Your task to perform on an android device: turn on notifications settings in the gmail app Image 0: 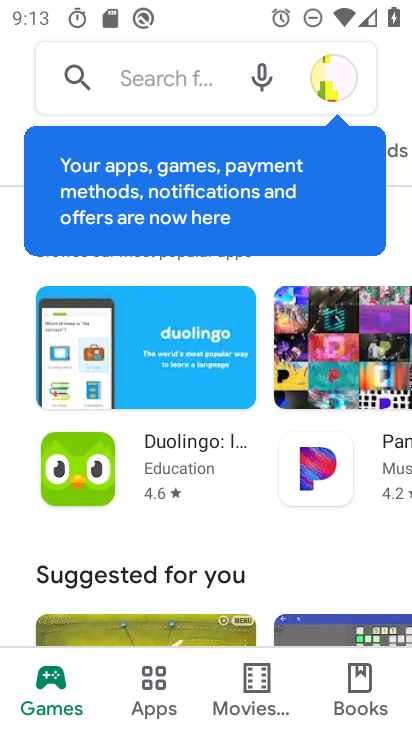
Step 0: press home button
Your task to perform on an android device: turn on notifications settings in the gmail app Image 1: 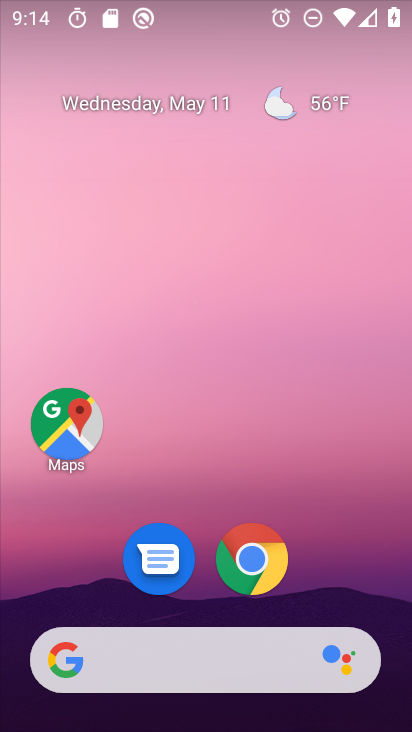
Step 1: drag from (298, 493) to (252, 162)
Your task to perform on an android device: turn on notifications settings in the gmail app Image 2: 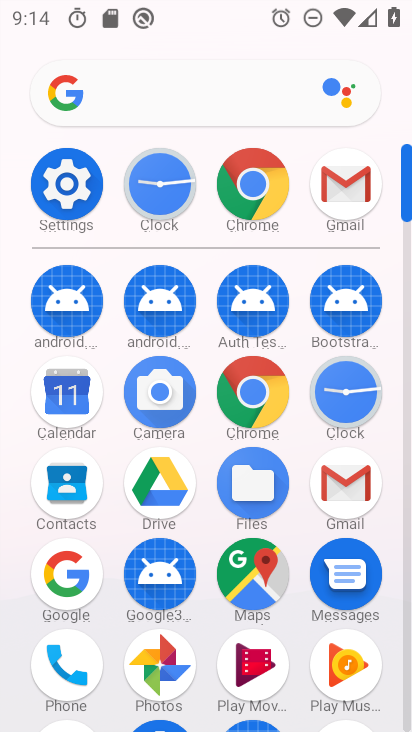
Step 2: click (338, 184)
Your task to perform on an android device: turn on notifications settings in the gmail app Image 3: 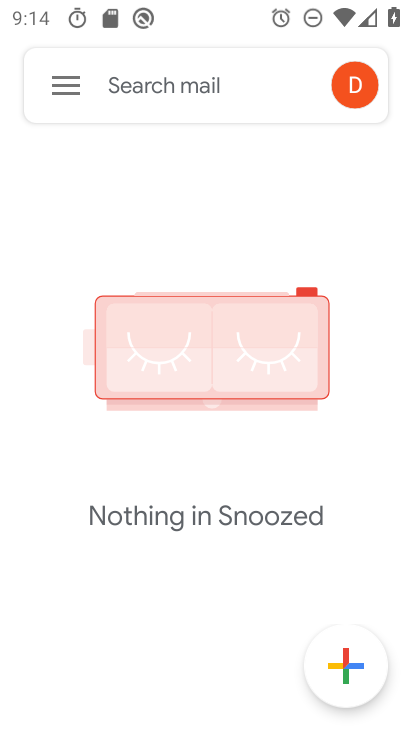
Step 3: click (64, 95)
Your task to perform on an android device: turn on notifications settings in the gmail app Image 4: 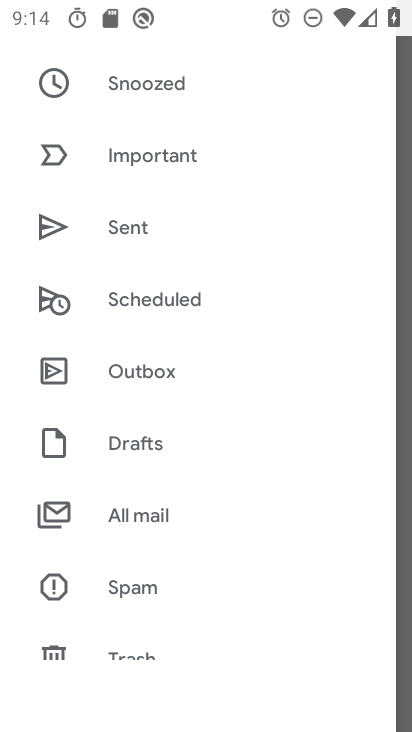
Step 4: drag from (172, 579) to (187, 312)
Your task to perform on an android device: turn on notifications settings in the gmail app Image 5: 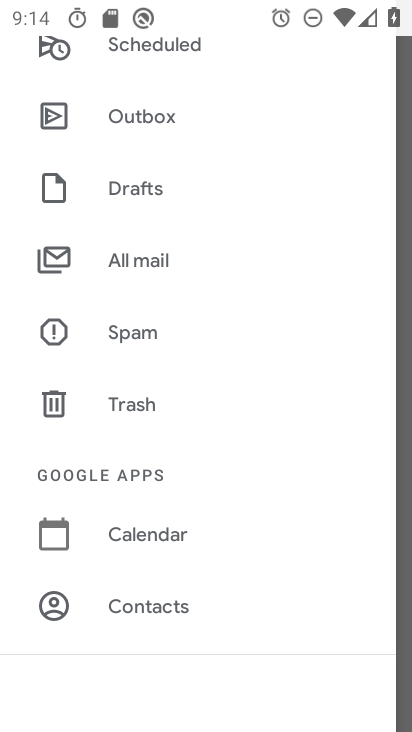
Step 5: drag from (215, 528) to (232, 253)
Your task to perform on an android device: turn on notifications settings in the gmail app Image 6: 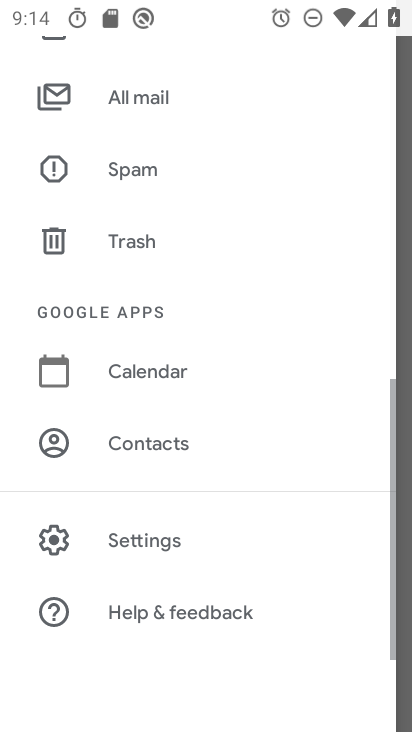
Step 6: click (156, 545)
Your task to perform on an android device: turn on notifications settings in the gmail app Image 7: 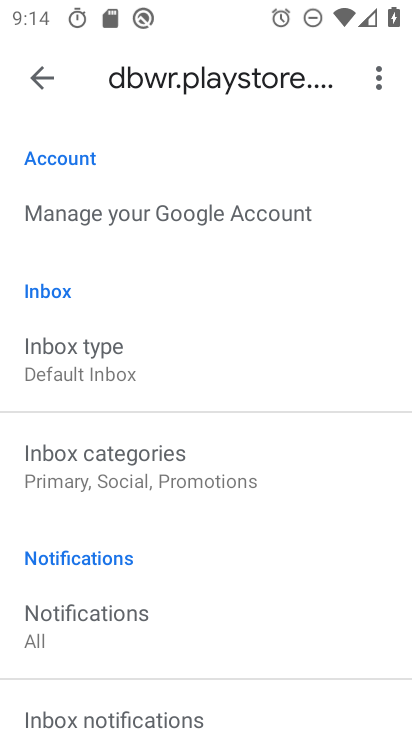
Step 7: drag from (183, 635) to (225, 260)
Your task to perform on an android device: turn on notifications settings in the gmail app Image 8: 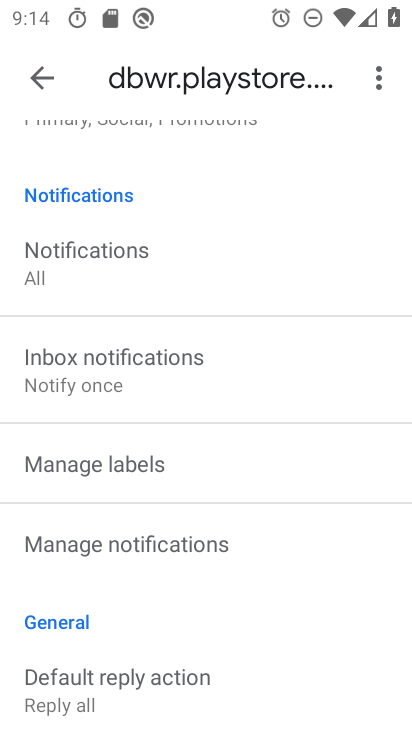
Step 8: click (198, 540)
Your task to perform on an android device: turn on notifications settings in the gmail app Image 9: 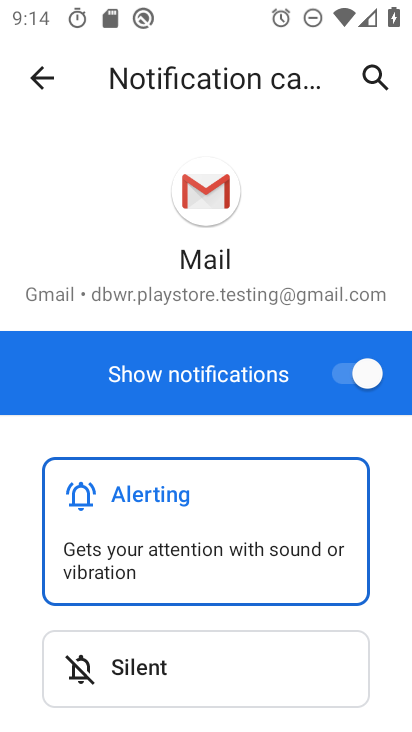
Step 9: task complete